Your task to perform on an android device: change the clock style Image 0: 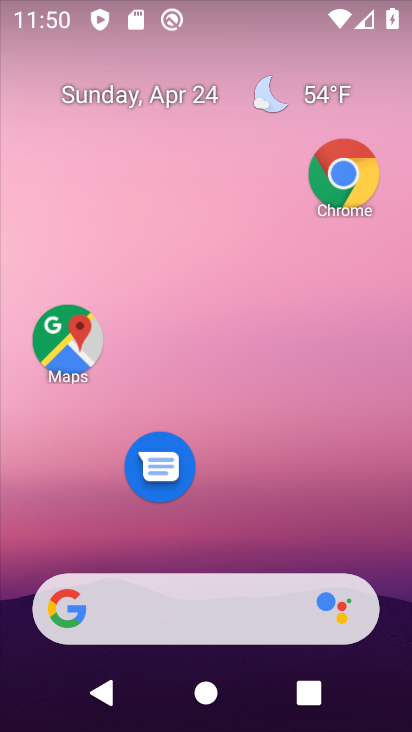
Step 0: drag from (186, 480) to (230, 139)
Your task to perform on an android device: change the clock style Image 1: 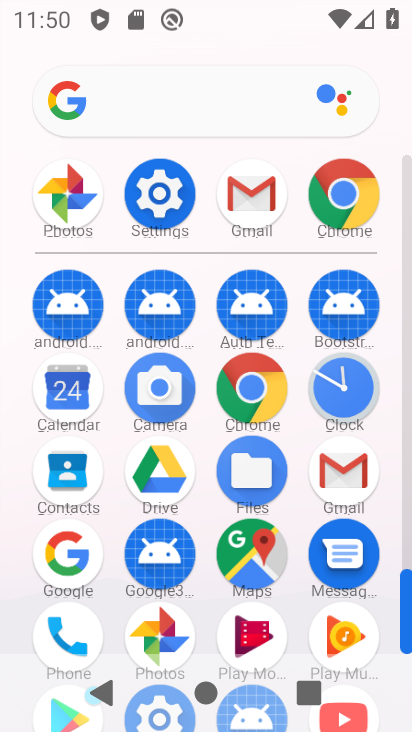
Step 1: click (343, 385)
Your task to perform on an android device: change the clock style Image 2: 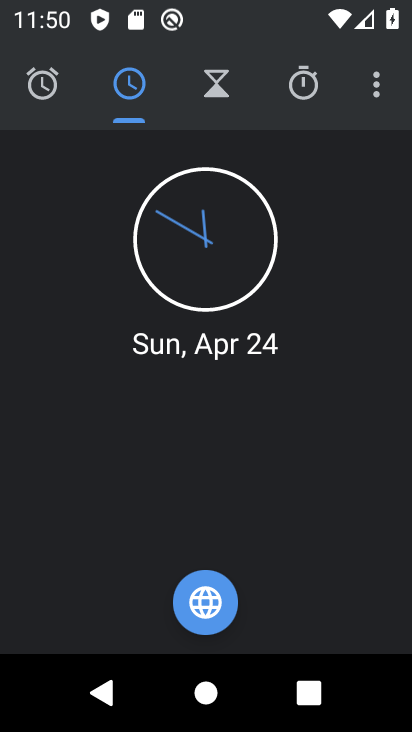
Step 2: click (364, 92)
Your task to perform on an android device: change the clock style Image 3: 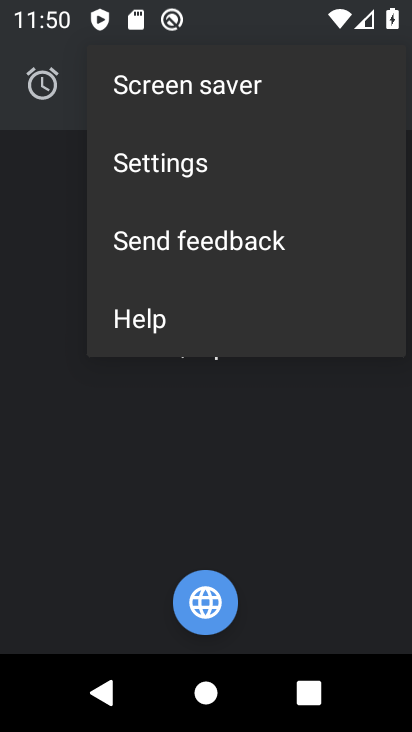
Step 3: click (239, 169)
Your task to perform on an android device: change the clock style Image 4: 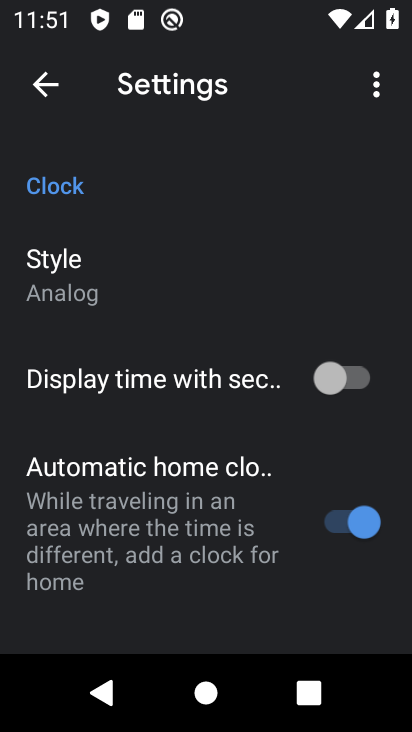
Step 4: drag from (228, 543) to (230, 110)
Your task to perform on an android device: change the clock style Image 5: 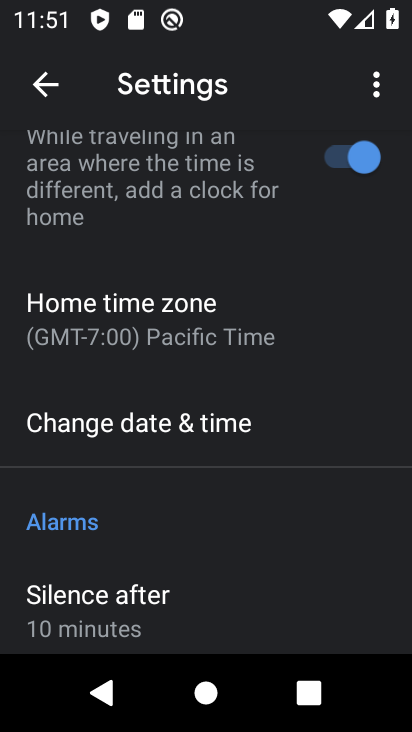
Step 5: drag from (190, 195) to (268, 692)
Your task to perform on an android device: change the clock style Image 6: 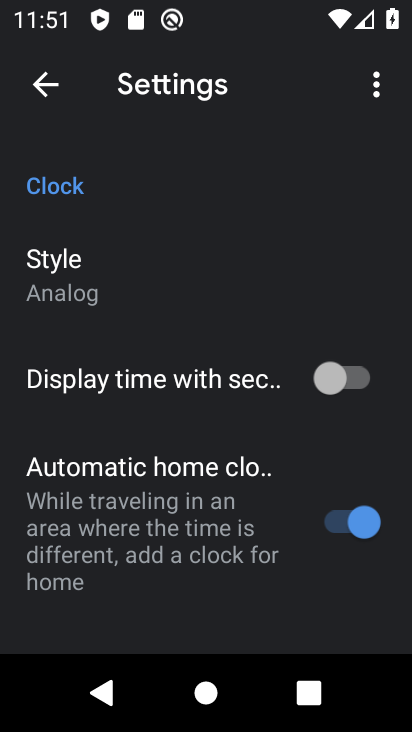
Step 6: click (62, 288)
Your task to perform on an android device: change the clock style Image 7: 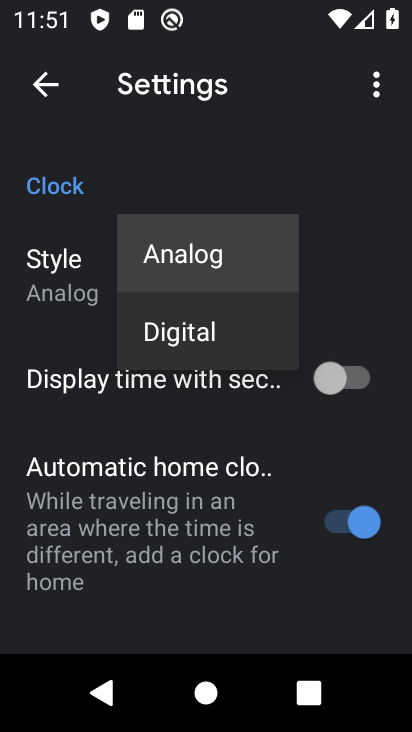
Step 7: click (209, 340)
Your task to perform on an android device: change the clock style Image 8: 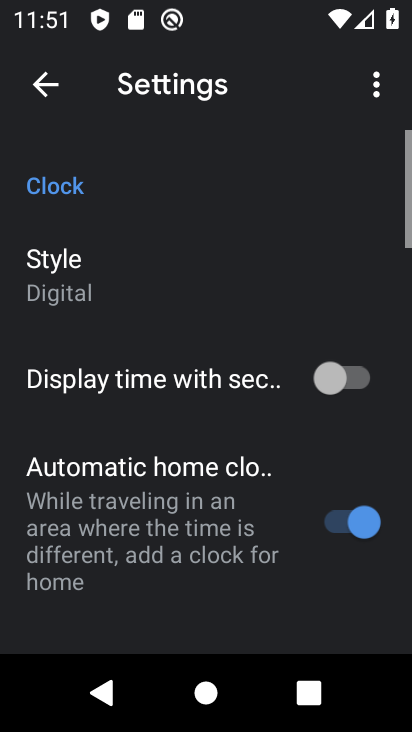
Step 8: task complete